Your task to perform on an android device: snooze an email in the gmail app Image 0: 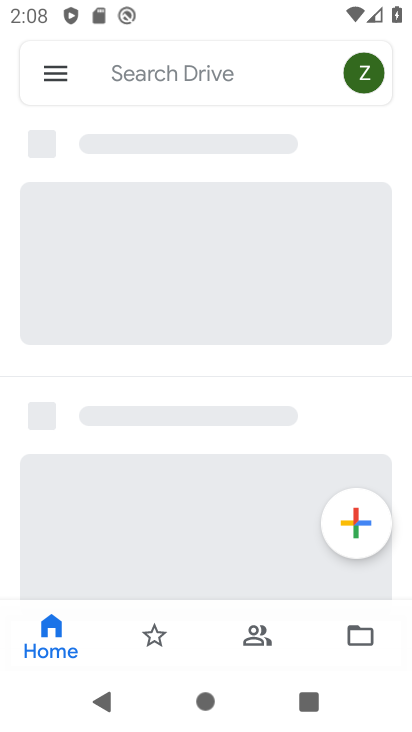
Step 0: press home button
Your task to perform on an android device: snooze an email in the gmail app Image 1: 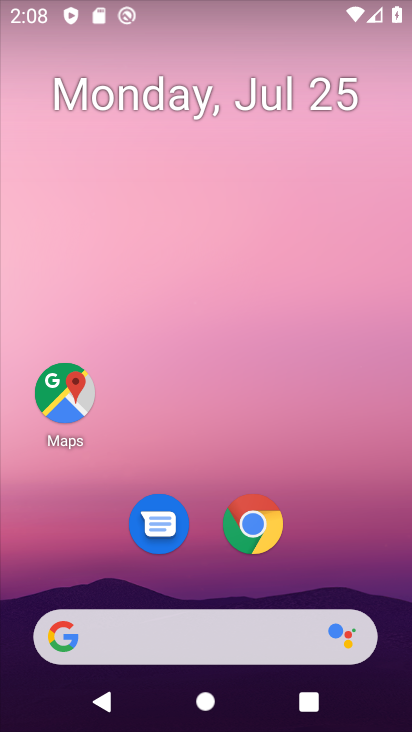
Step 1: drag from (223, 641) to (356, 33)
Your task to perform on an android device: snooze an email in the gmail app Image 2: 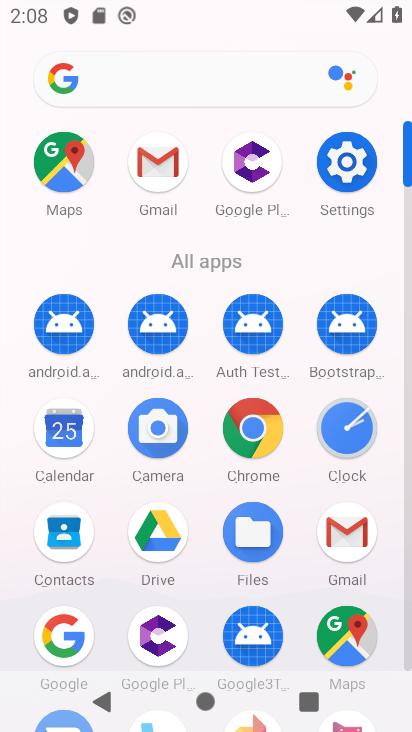
Step 2: click (161, 175)
Your task to perform on an android device: snooze an email in the gmail app Image 3: 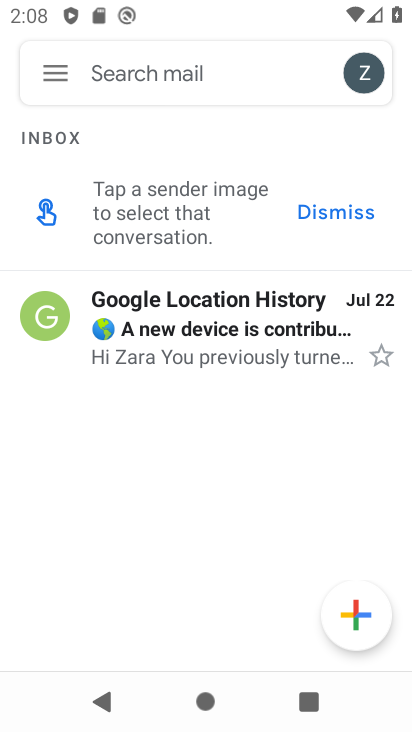
Step 3: click (52, 317)
Your task to perform on an android device: snooze an email in the gmail app Image 4: 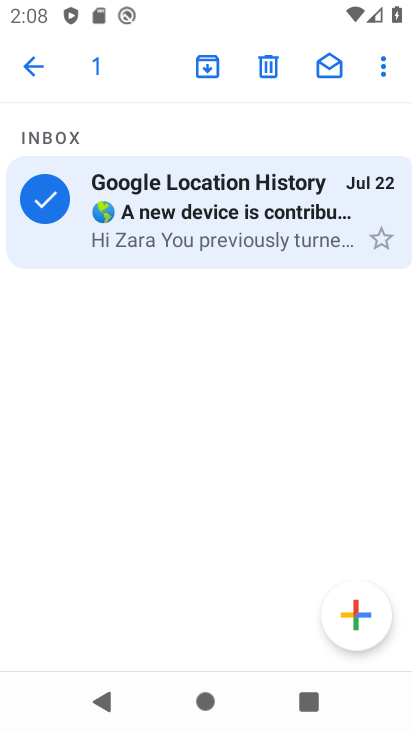
Step 4: click (385, 67)
Your task to perform on an android device: snooze an email in the gmail app Image 5: 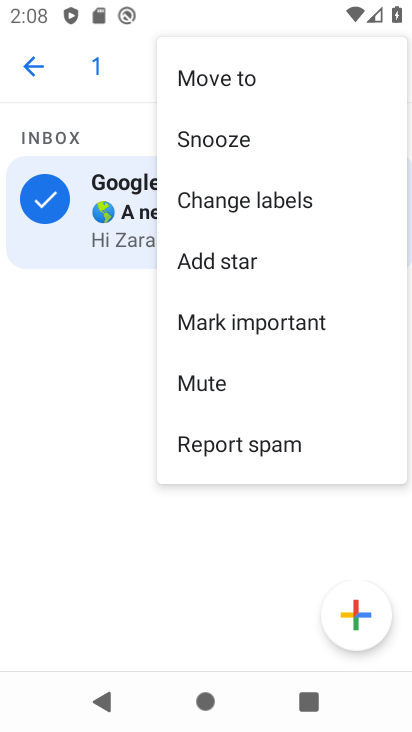
Step 5: click (234, 143)
Your task to perform on an android device: snooze an email in the gmail app Image 6: 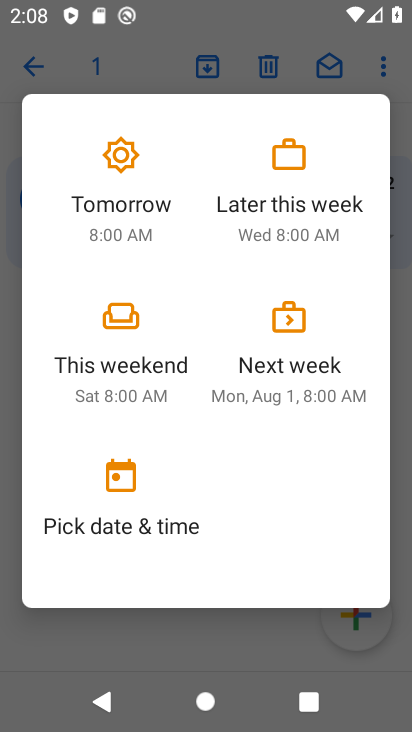
Step 6: click (126, 214)
Your task to perform on an android device: snooze an email in the gmail app Image 7: 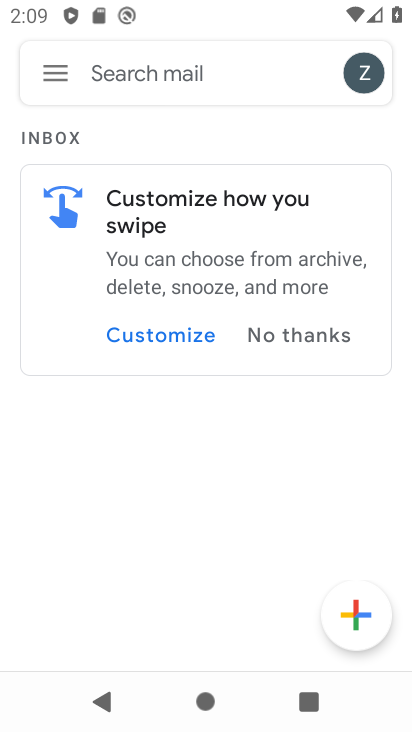
Step 7: task complete